Your task to perform on an android device: See recent photos Image 0: 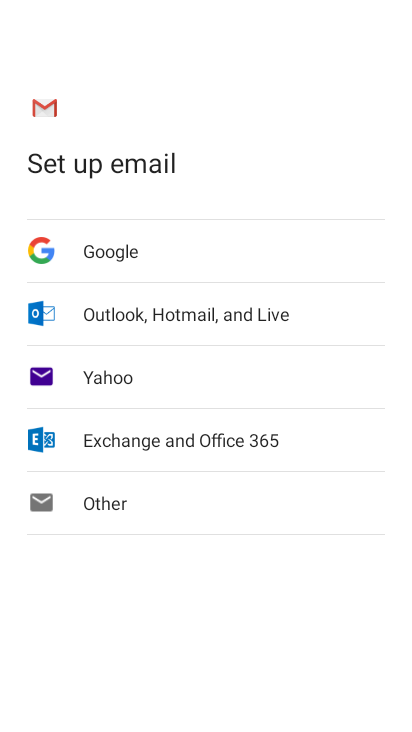
Step 0: press back button
Your task to perform on an android device: See recent photos Image 1: 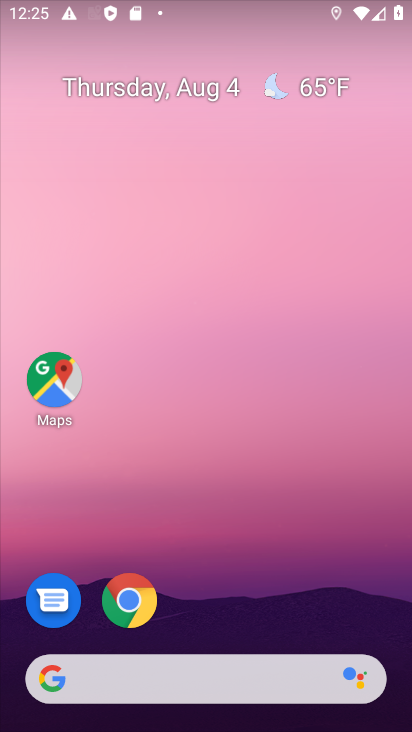
Step 1: drag from (217, 630) to (180, 149)
Your task to perform on an android device: See recent photos Image 2: 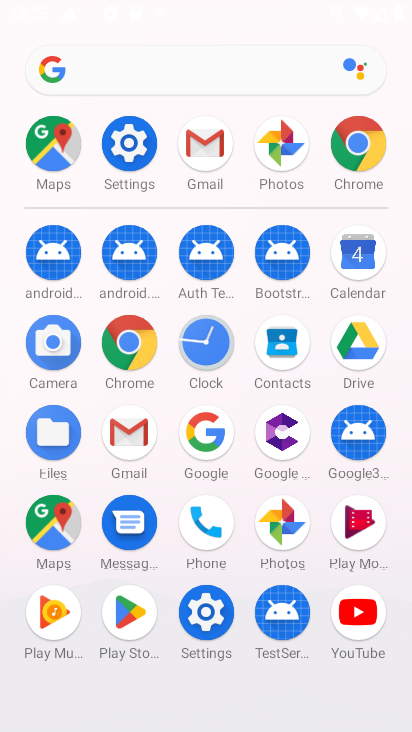
Step 2: click (284, 532)
Your task to perform on an android device: See recent photos Image 3: 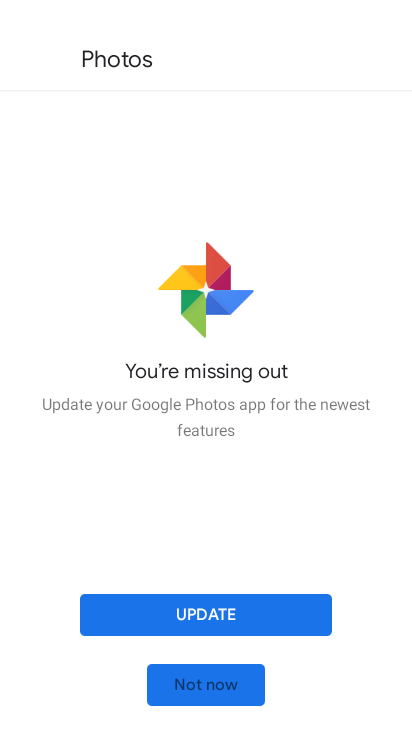
Step 3: click (218, 680)
Your task to perform on an android device: See recent photos Image 4: 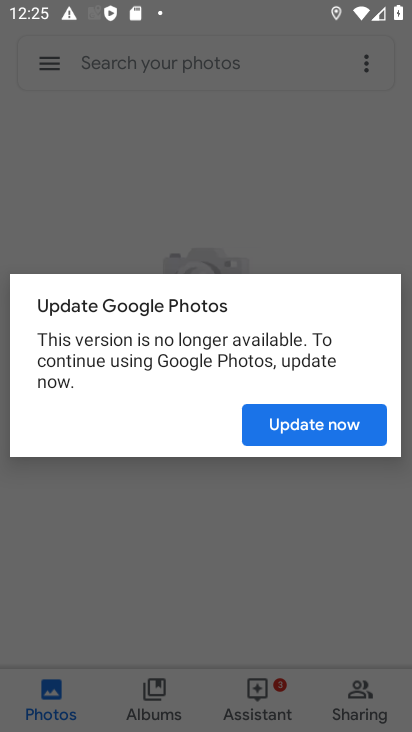
Step 4: click (273, 434)
Your task to perform on an android device: See recent photos Image 5: 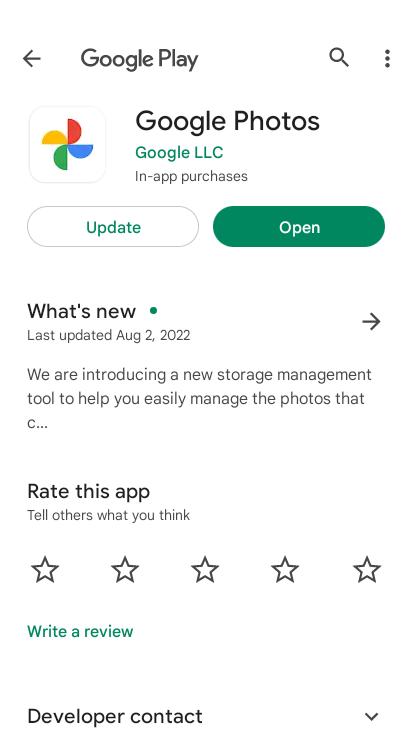
Step 5: click (245, 224)
Your task to perform on an android device: See recent photos Image 6: 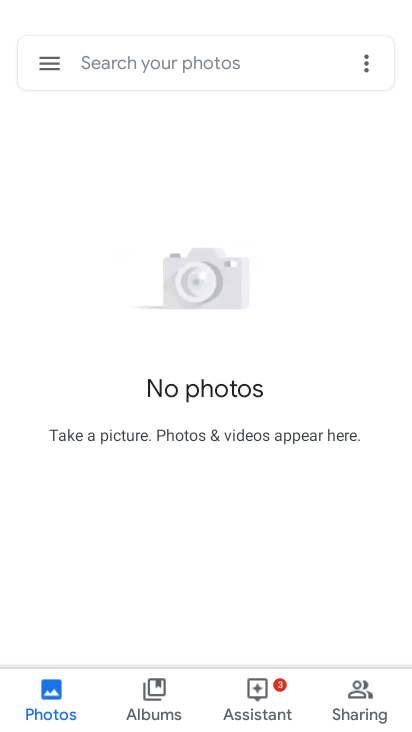
Step 6: task complete